Your task to perform on an android device: Find coffee shops on Maps Image 0: 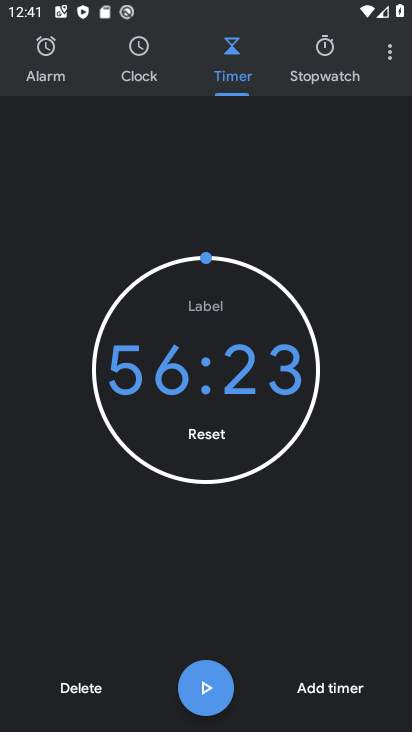
Step 0: press home button
Your task to perform on an android device: Find coffee shops on Maps Image 1: 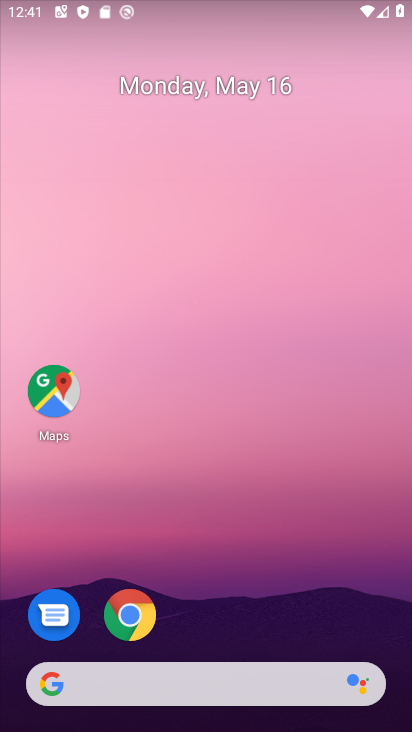
Step 1: drag from (311, 636) to (410, 56)
Your task to perform on an android device: Find coffee shops on Maps Image 2: 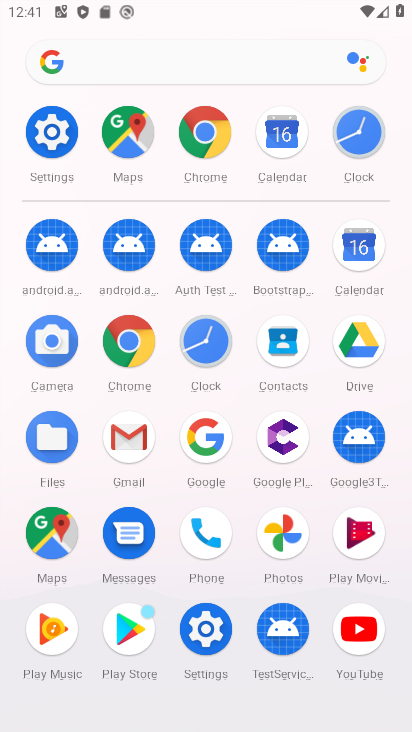
Step 2: click (32, 537)
Your task to perform on an android device: Find coffee shops on Maps Image 3: 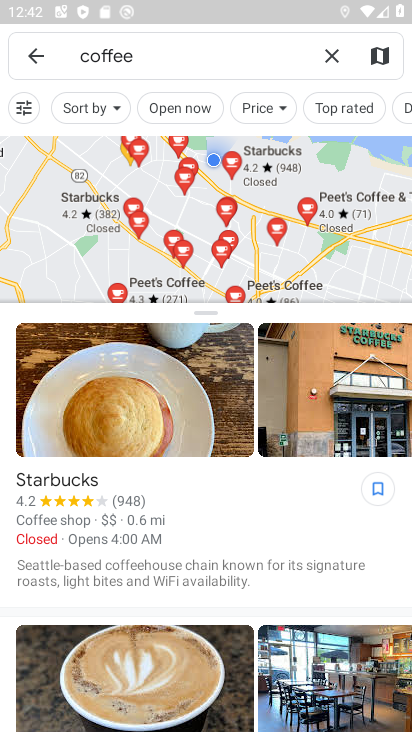
Step 3: task complete